Your task to perform on an android device: How old is the earth? Image 0: 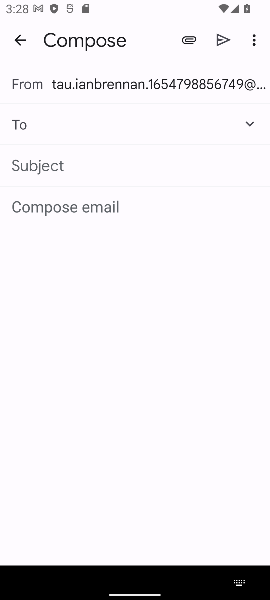
Step 0: press home button
Your task to perform on an android device: How old is the earth? Image 1: 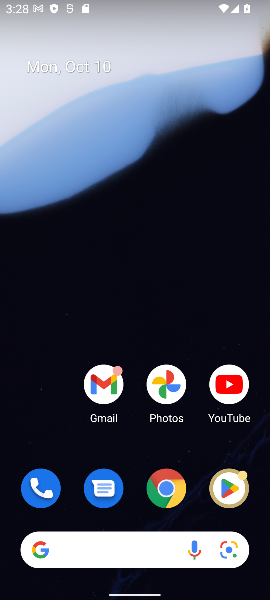
Step 1: click (116, 563)
Your task to perform on an android device: How old is the earth? Image 2: 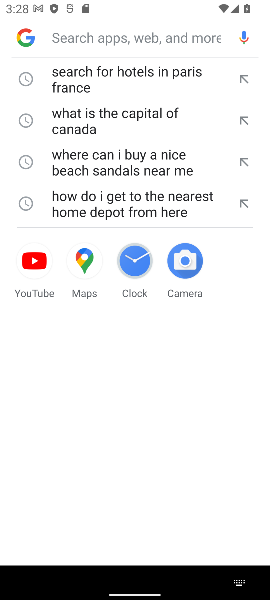
Step 2: click (101, 32)
Your task to perform on an android device: How old is the earth? Image 3: 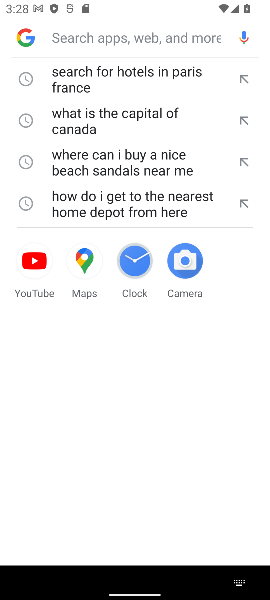
Step 3: type "How old is the earth"
Your task to perform on an android device: How old is the earth? Image 4: 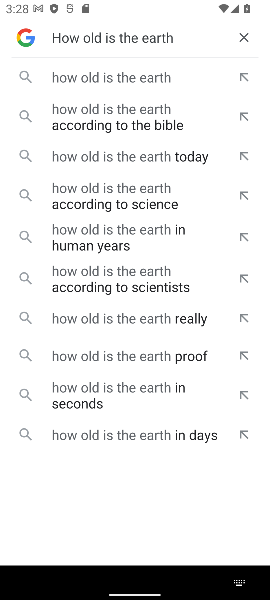
Step 4: click (125, 79)
Your task to perform on an android device: How old is the earth? Image 5: 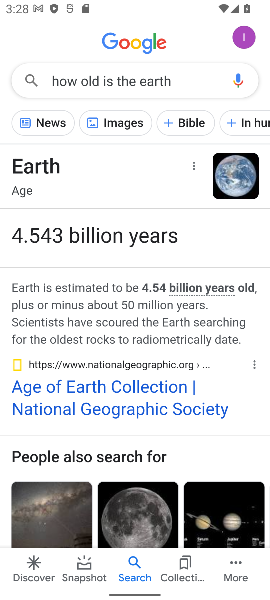
Step 5: task complete